Your task to perform on an android device: Go to Reddit.com Image 0: 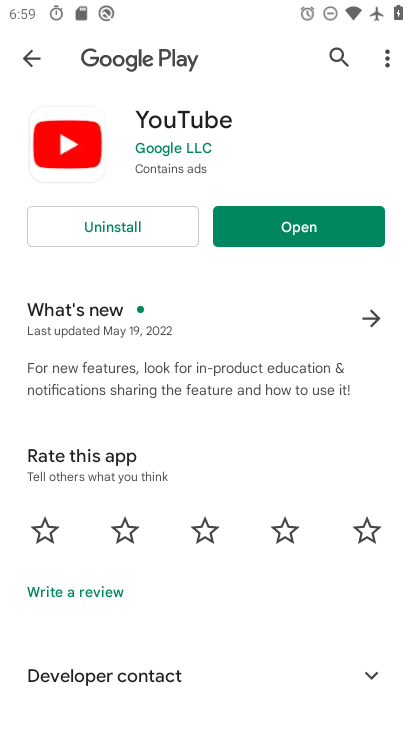
Step 0: press home button
Your task to perform on an android device: Go to Reddit.com Image 1: 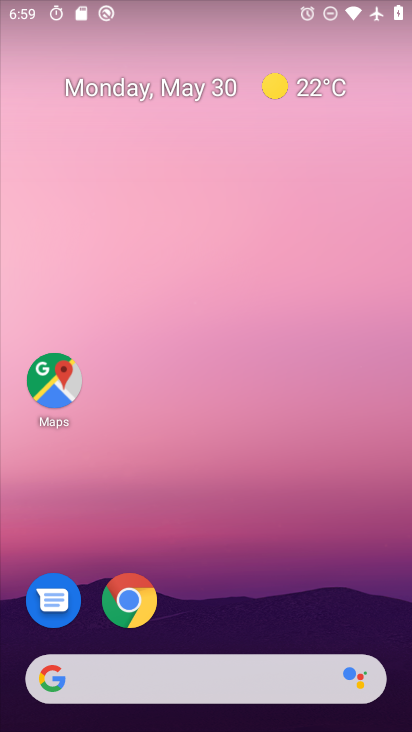
Step 1: click (55, 684)
Your task to perform on an android device: Go to Reddit.com Image 2: 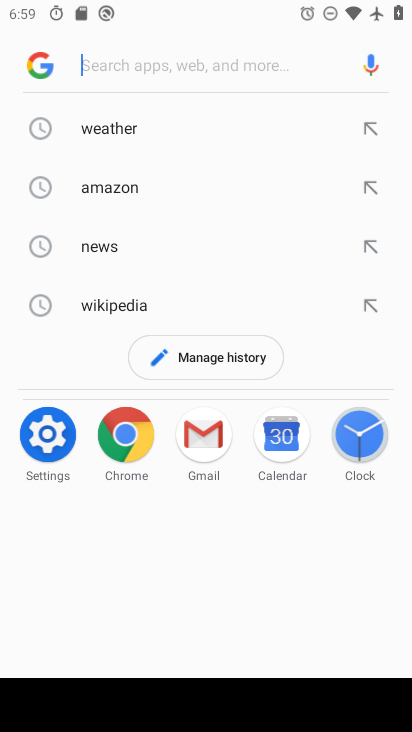
Step 2: type "Reddit.com"
Your task to perform on an android device: Go to Reddit.com Image 3: 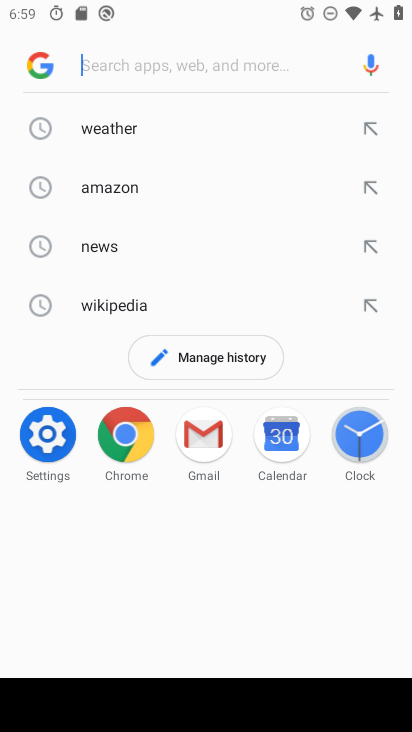
Step 3: click (143, 64)
Your task to perform on an android device: Go to Reddit.com Image 4: 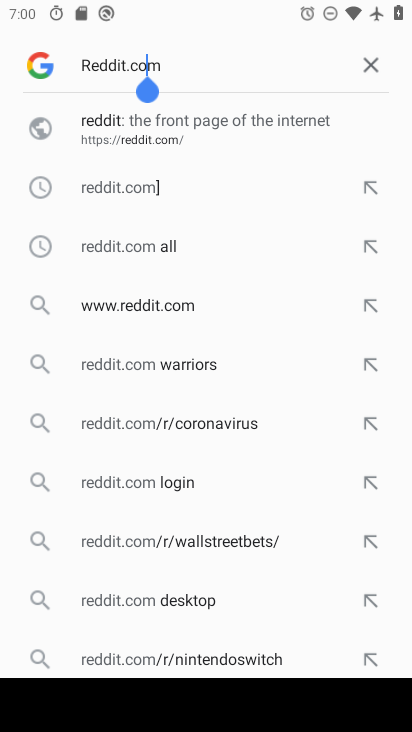
Step 4: click (150, 122)
Your task to perform on an android device: Go to Reddit.com Image 5: 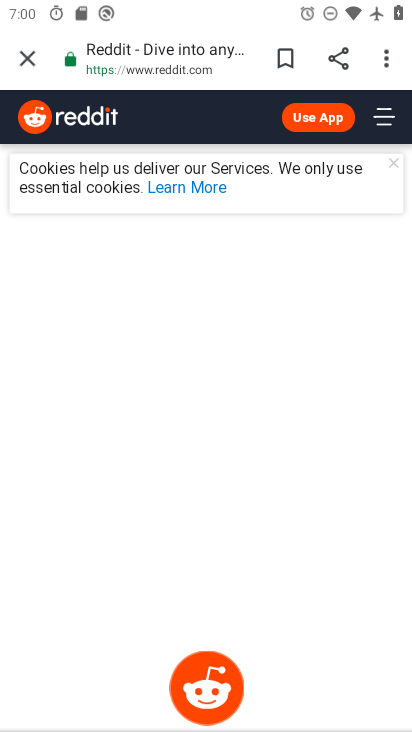
Step 5: task complete